Your task to perform on an android device: turn on the 24-hour format for clock Image 0: 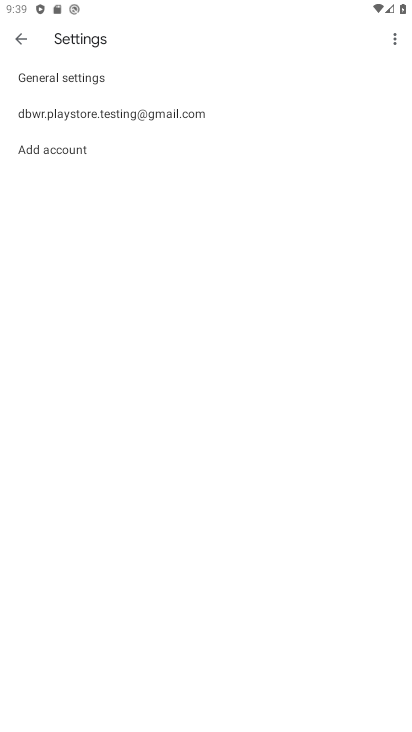
Step 0: press home button
Your task to perform on an android device: turn on the 24-hour format for clock Image 1: 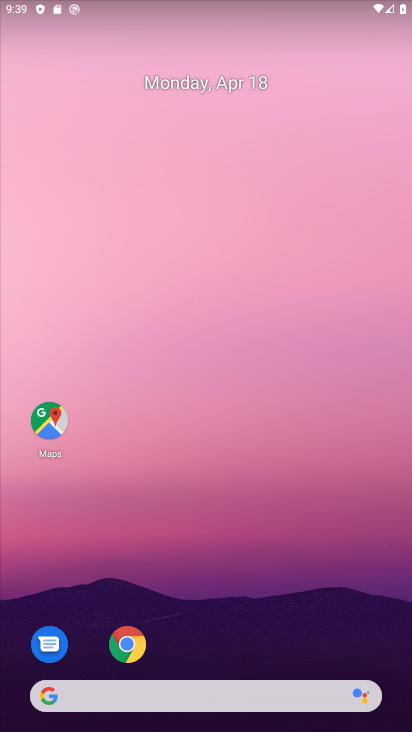
Step 1: drag from (213, 529) to (349, 8)
Your task to perform on an android device: turn on the 24-hour format for clock Image 2: 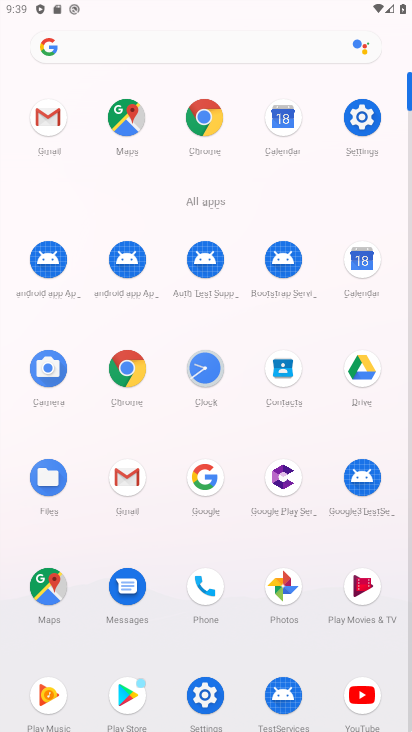
Step 2: click (370, 146)
Your task to perform on an android device: turn on the 24-hour format for clock Image 3: 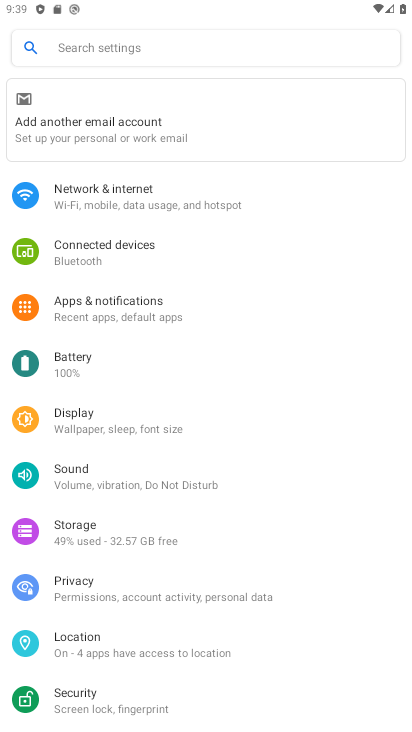
Step 3: drag from (110, 666) to (197, 224)
Your task to perform on an android device: turn on the 24-hour format for clock Image 4: 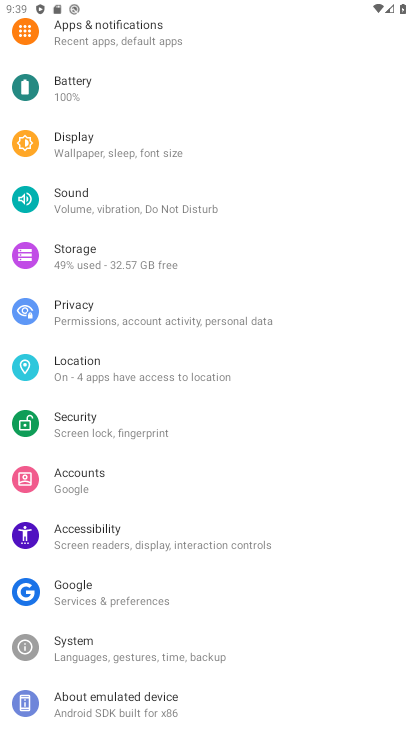
Step 4: click (90, 651)
Your task to perform on an android device: turn on the 24-hour format for clock Image 5: 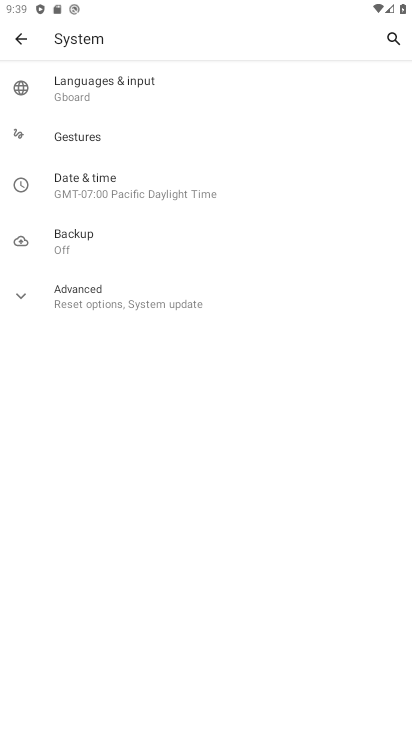
Step 5: click (123, 191)
Your task to perform on an android device: turn on the 24-hour format for clock Image 6: 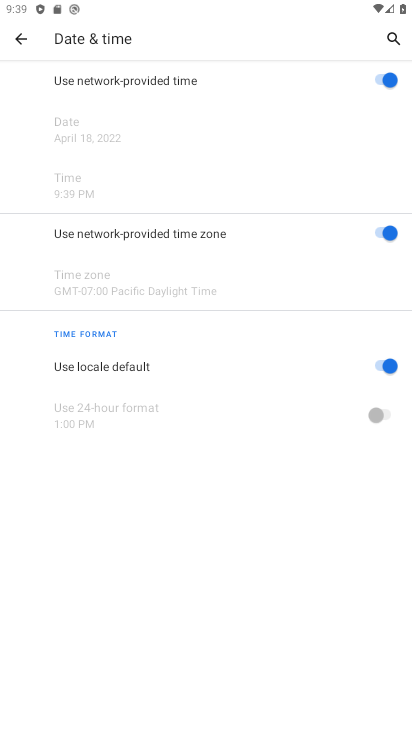
Step 6: click (377, 368)
Your task to perform on an android device: turn on the 24-hour format for clock Image 7: 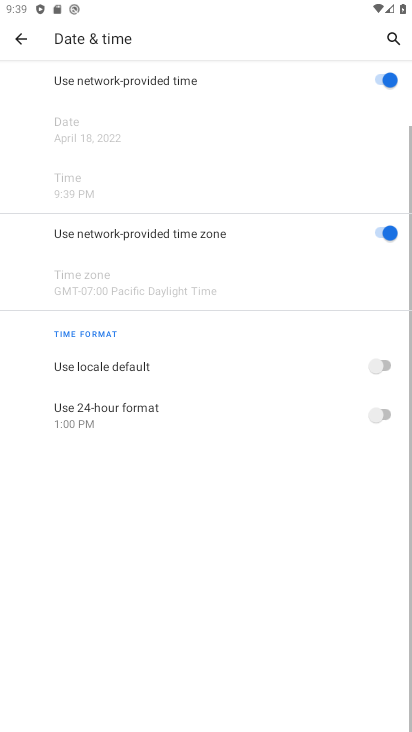
Step 7: click (388, 412)
Your task to perform on an android device: turn on the 24-hour format for clock Image 8: 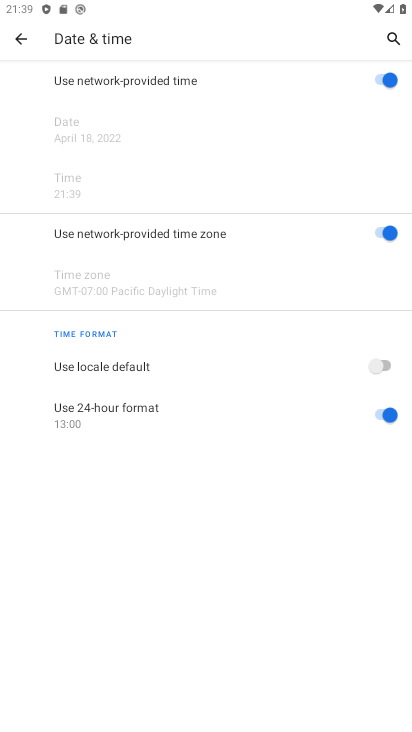
Step 8: task complete